Your task to perform on an android device: What is the news today? Image 0: 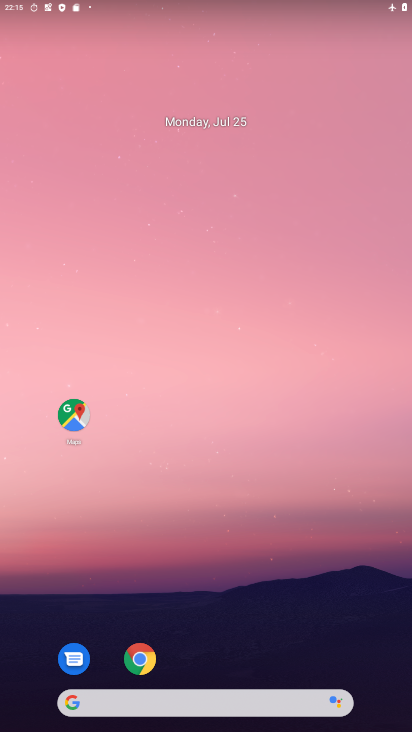
Step 0: drag from (213, 663) to (213, 299)
Your task to perform on an android device: What is the news today? Image 1: 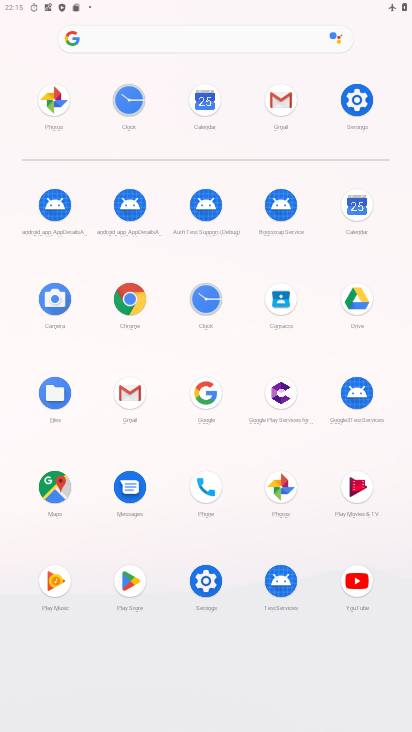
Step 1: click (211, 403)
Your task to perform on an android device: What is the news today? Image 2: 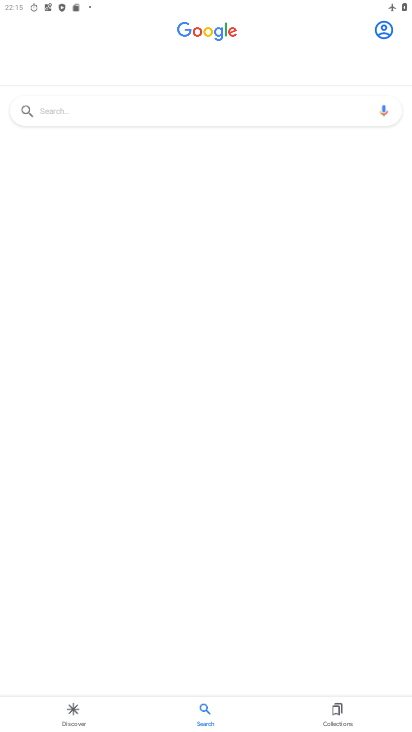
Step 2: click (82, 114)
Your task to perform on an android device: What is the news today? Image 3: 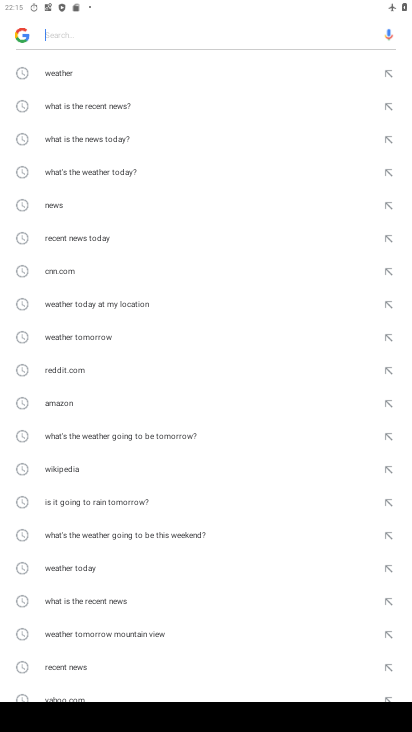
Step 3: click (79, 202)
Your task to perform on an android device: What is the news today? Image 4: 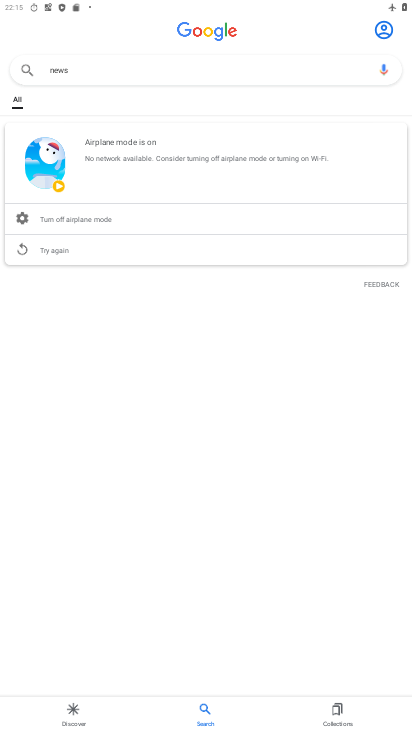
Step 4: task complete